Your task to perform on an android device: Do I have any events this weekend? Image 0: 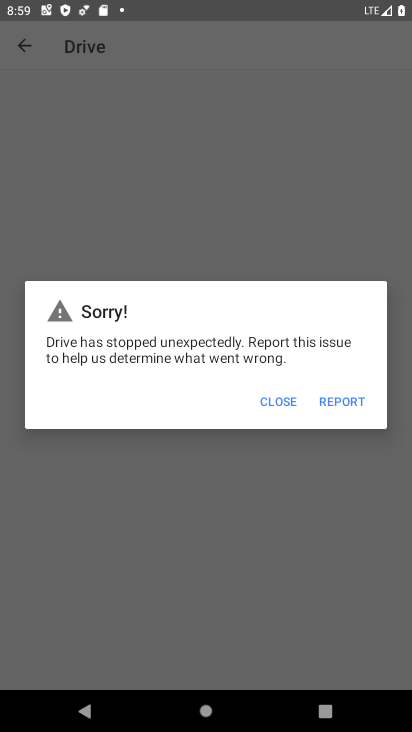
Step 0: press home button
Your task to perform on an android device: Do I have any events this weekend? Image 1: 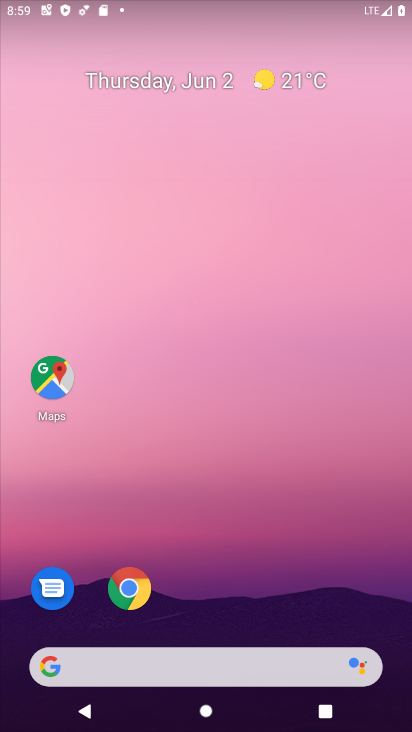
Step 1: drag from (196, 492) to (181, 210)
Your task to perform on an android device: Do I have any events this weekend? Image 2: 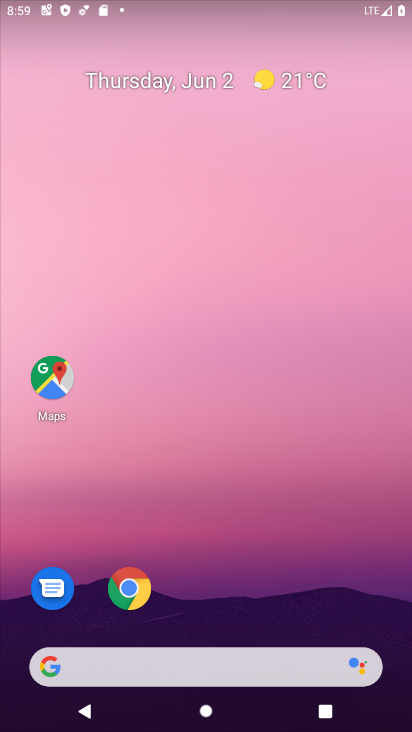
Step 2: drag from (196, 580) to (165, 215)
Your task to perform on an android device: Do I have any events this weekend? Image 3: 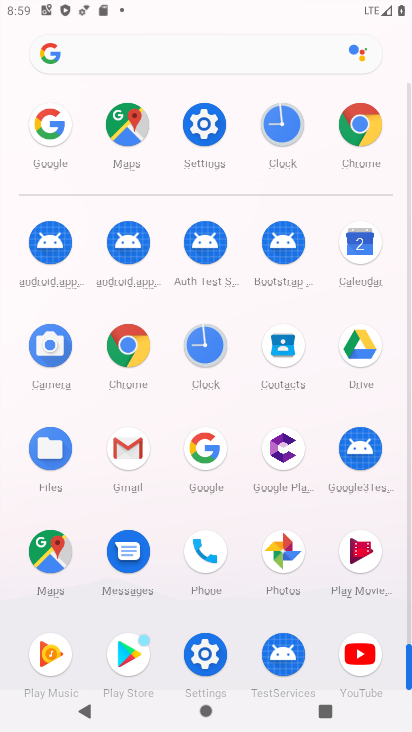
Step 3: click (367, 263)
Your task to perform on an android device: Do I have any events this weekend? Image 4: 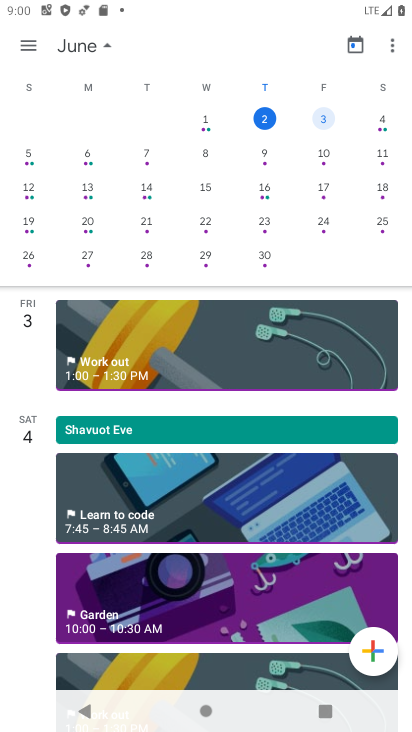
Step 4: click (322, 114)
Your task to perform on an android device: Do I have any events this weekend? Image 5: 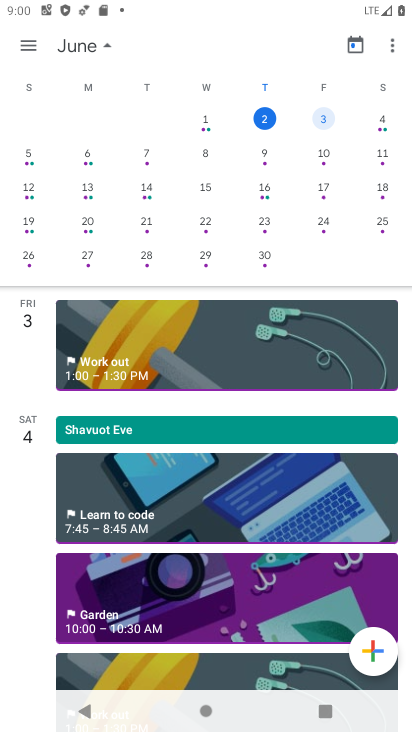
Step 5: click (384, 131)
Your task to perform on an android device: Do I have any events this weekend? Image 6: 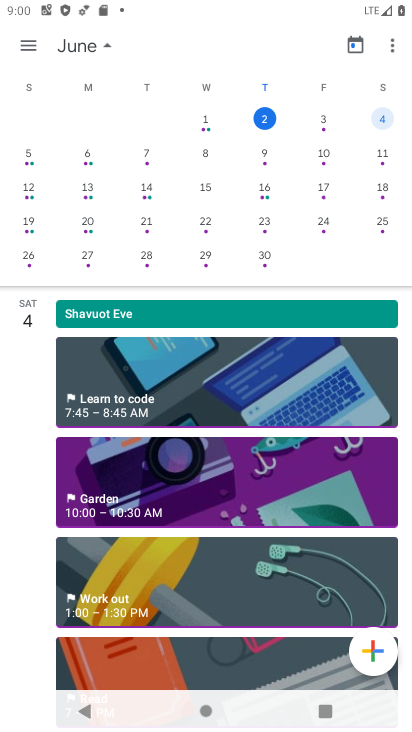
Step 6: task complete